Your task to perform on an android device: Open calendar and show me the second week of next month Image 0: 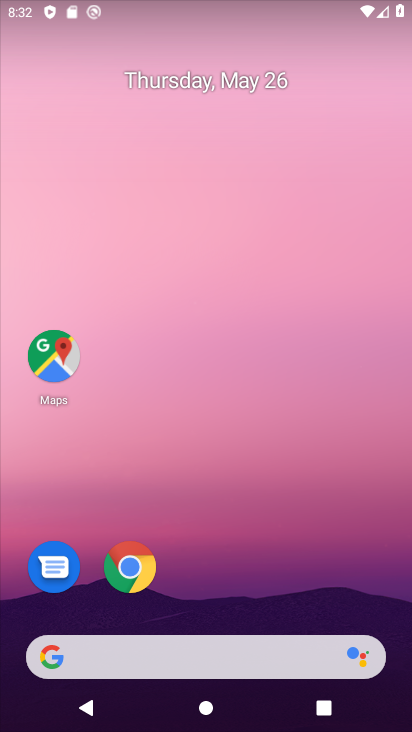
Step 0: click (252, 85)
Your task to perform on an android device: Open calendar and show me the second week of next month Image 1: 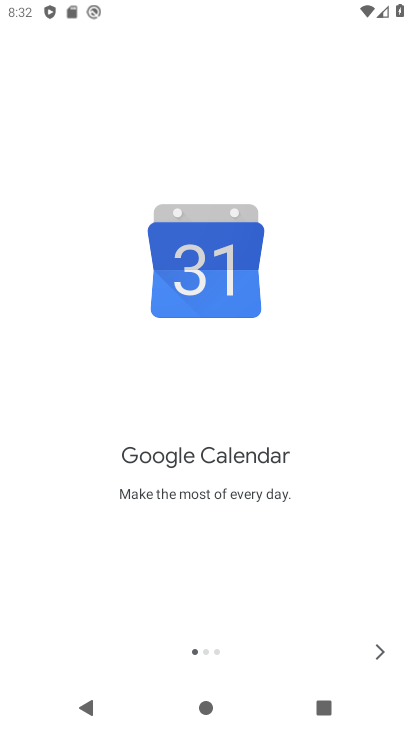
Step 1: click (376, 650)
Your task to perform on an android device: Open calendar and show me the second week of next month Image 2: 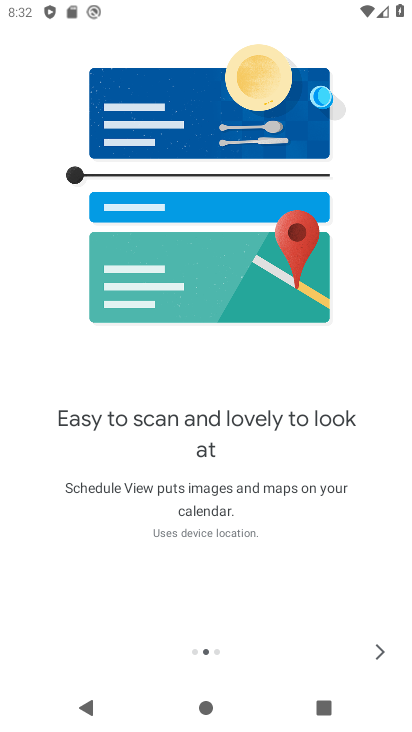
Step 2: click (376, 650)
Your task to perform on an android device: Open calendar and show me the second week of next month Image 3: 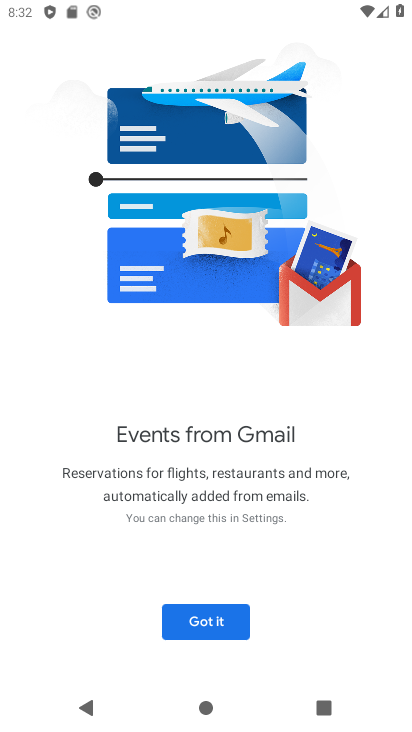
Step 3: click (209, 621)
Your task to perform on an android device: Open calendar and show me the second week of next month Image 4: 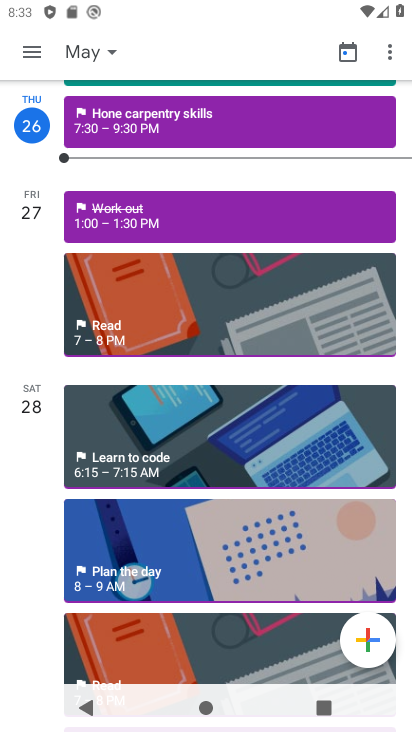
Step 4: click (25, 47)
Your task to perform on an android device: Open calendar and show me the second week of next month Image 5: 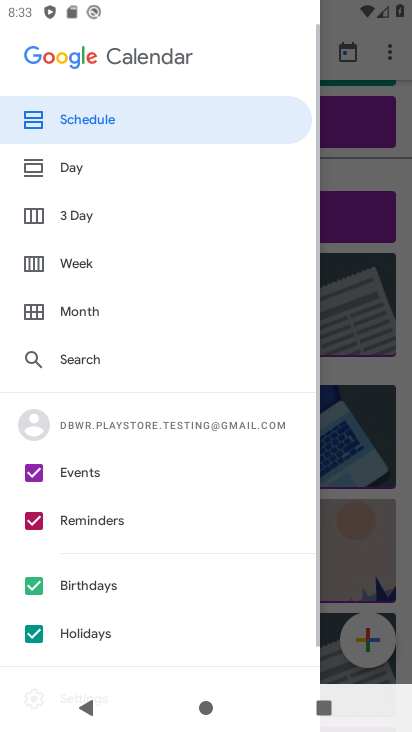
Step 5: click (78, 259)
Your task to perform on an android device: Open calendar and show me the second week of next month Image 6: 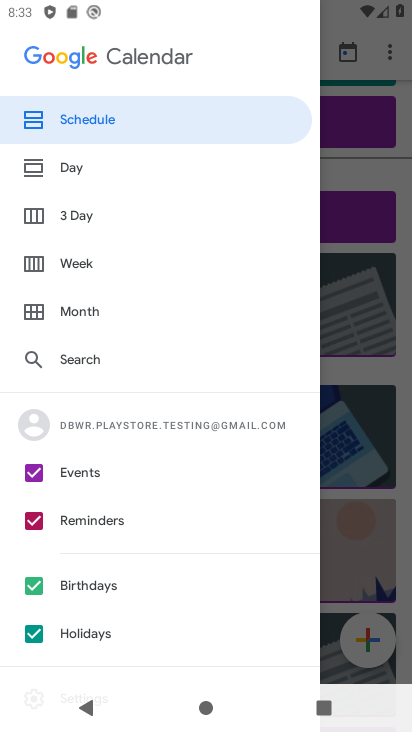
Step 6: click (71, 260)
Your task to perform on an android device: Open calendar and show me the second week of next month Image 7: 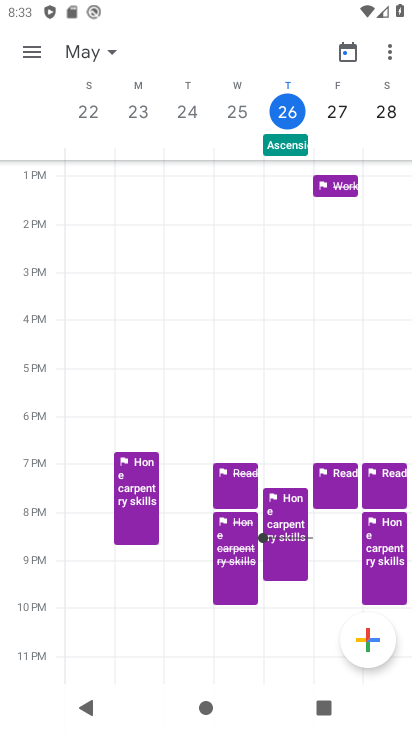
Step 7: click (111, 54)
Your task to perform on an android device: Open calendar and show me the second week of next month Image 8: 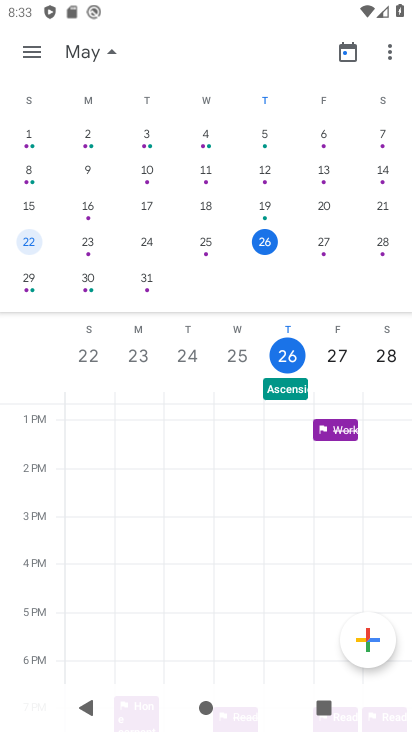
Step 8: drag from (358, 294) to (1, 258)
Your task to perform on an android device: Open calendar and show me the second week of next month Image 9: 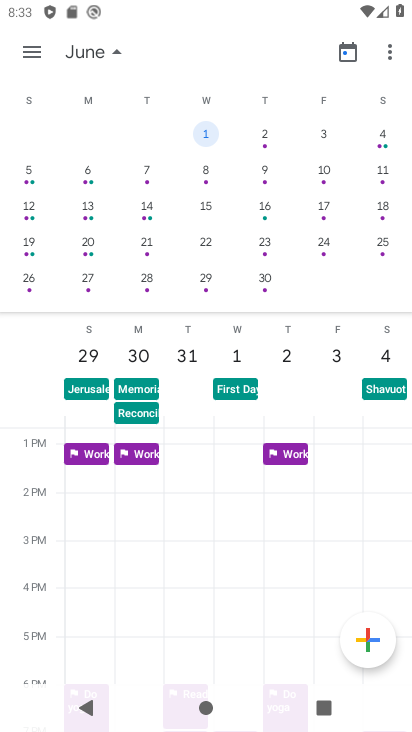
Step 9: click (201, 173)
Your task to perform on an android device: Open calendar and show me the second week of next month Image 10: 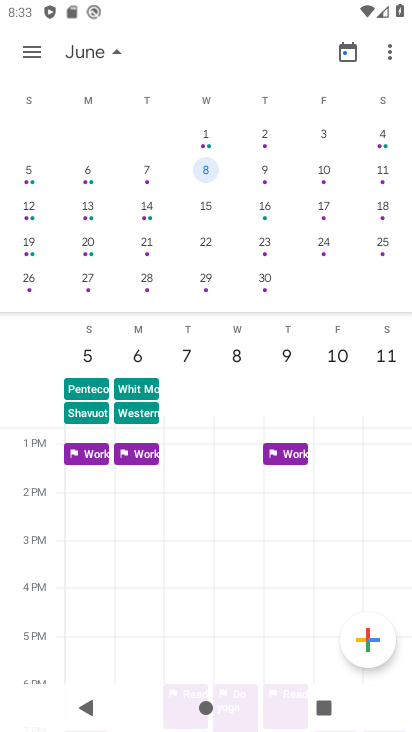
Step 10: task complete